Your task to perform on an android device: turn off wifi Image 0: 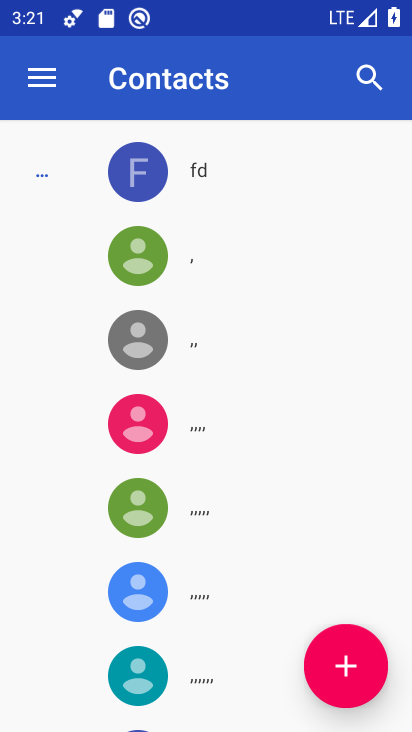
Step 0: press home button
Your task to perform on an android device: turn off wifi Image 1: 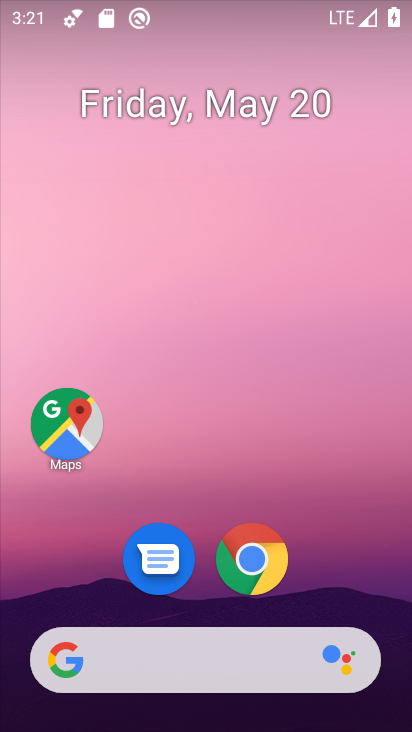
Step 1: drag from (301, 446) to (322, 0)
Your task to perform on an android device: turn off wifi Image 2: 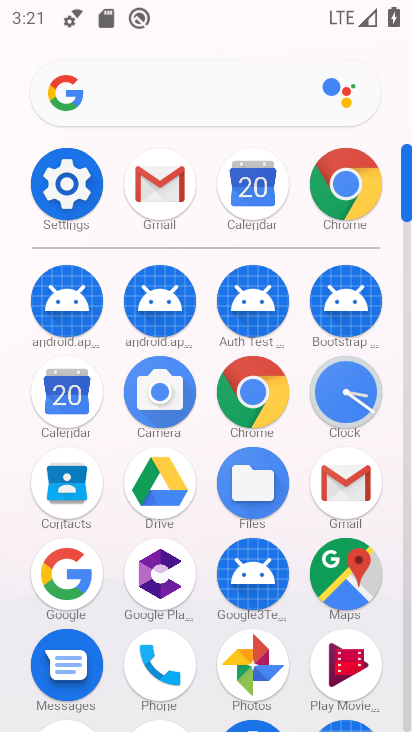
Step 2: click (77, 187)
Your task to perform on an android device: turn off wifi Image 3: 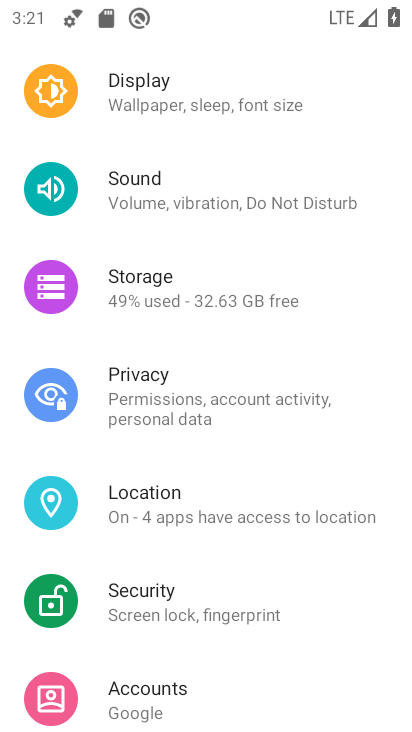
Step 3: drag from (201, 308) to (242, 717)
Your task to perform on an android device: turn off wifi Image 4: 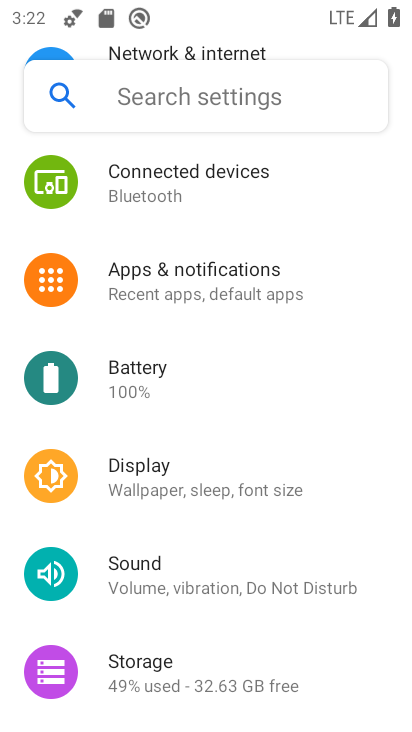
Step 4: drag from (259, 335) to (260, 673)
Your task to perform on an android device: turn off wifi Image 5: 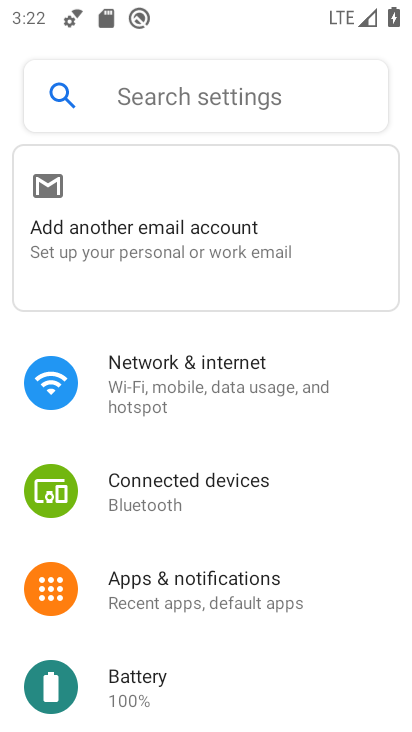
Step 5: click (250, 381)
Your task to perform on an android device: turn off wifi Image 6: 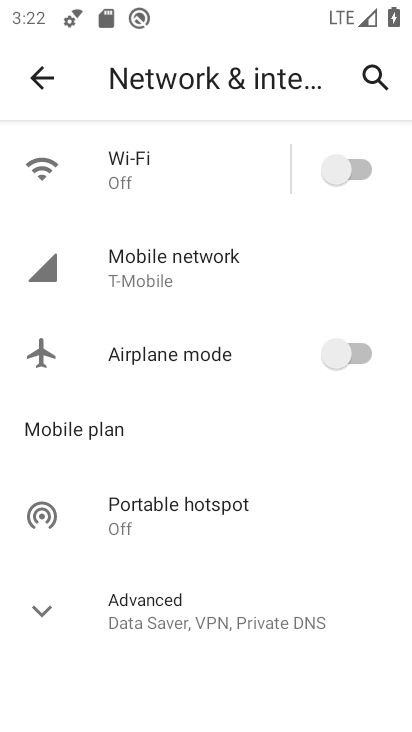
Step 6: task complete